Your task to perform on an android device: Open Google Chrome and click the shortcut for Amazon.com Image 0: 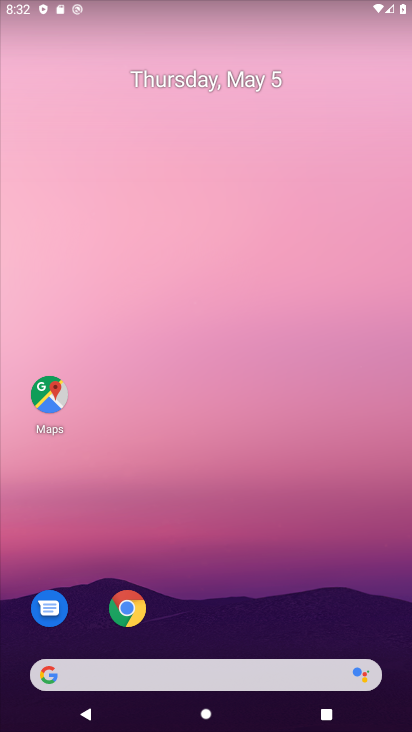
Step 0: drag from (291, 690) to (220, 8)
Your task to perform on an android device: Open Google Chrome and click the shortcut for Amazon.com Image 1: 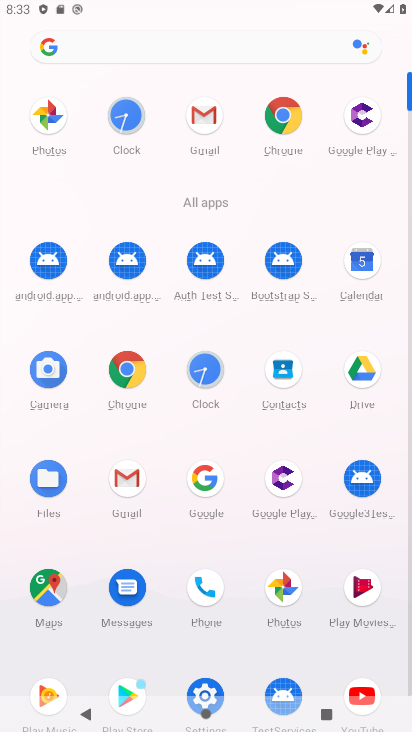
Step 1: click (133, 373)
Your task to perform on an android device: Open Google Chrome and click the shortcut for Amazon.com Image 2: 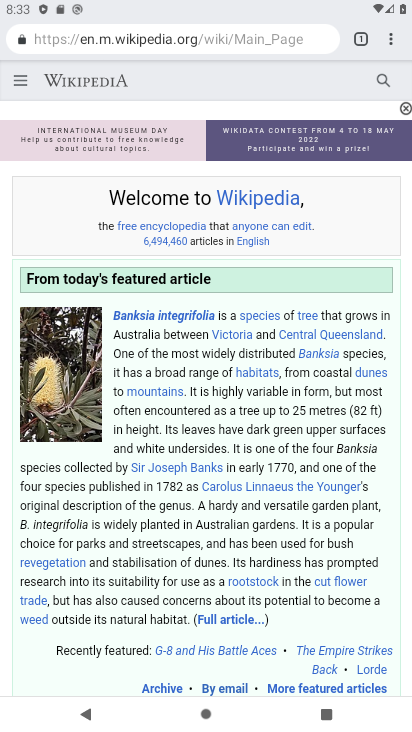
Step 2: drag from (391, 41) to (276, 80)
Your task to perform on an android device: Open Google Chrome and click the shortcut for Amazon.com Image 3: 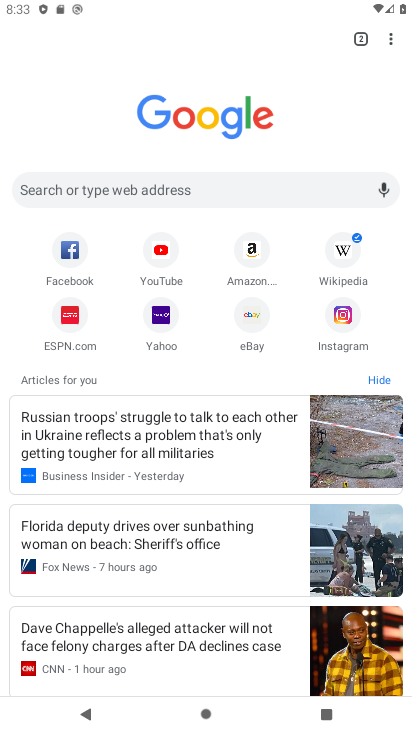
Step 3: click (258, 245)
Your task to perform on an android device: Open Google Chrome and click the shortcut for Amazon.com Image 4: 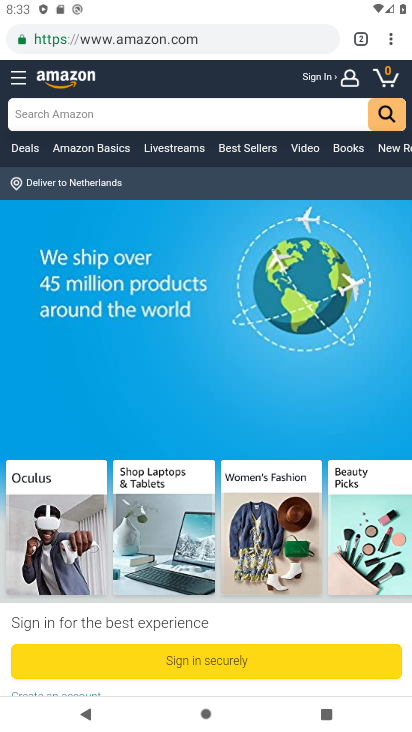
Step 4: task complete